Your task to perform on an android device: What's the weather? Image 0: 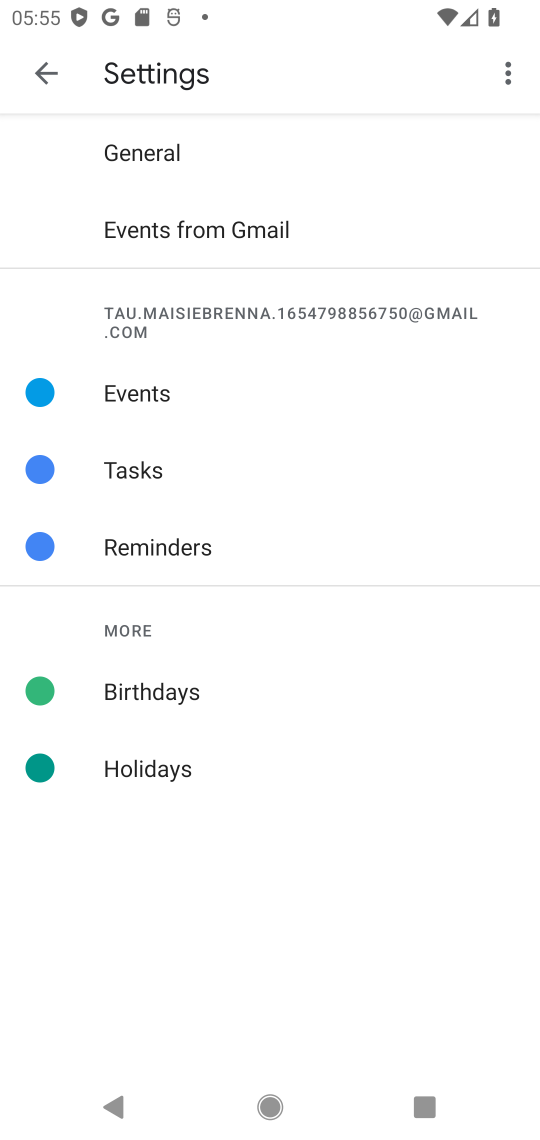
Step 0: press home button
Your task to perform on an android device: What's the weather? Image 1: 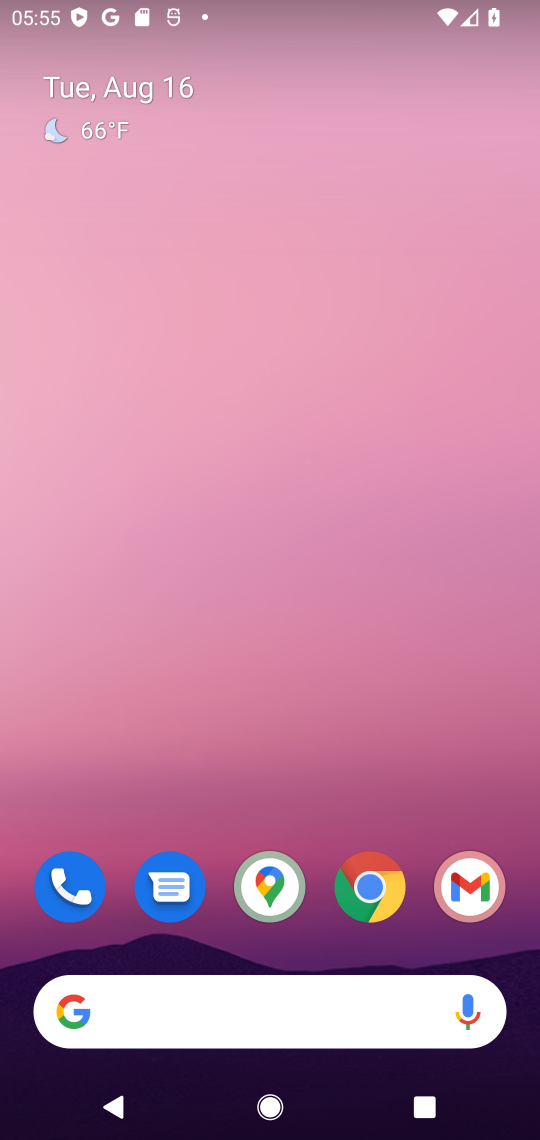
Step 1: click (97, 132)
Your task to perform on an android device: What's the weather? Image 2: 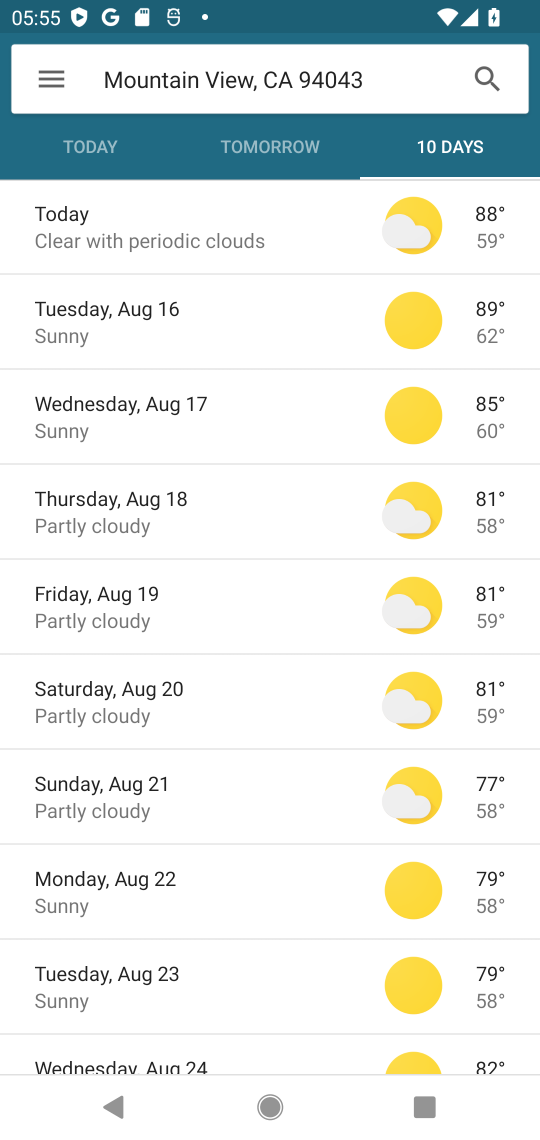
Step 2: task complete